Your task to perform on an android device: toggle sleep mode Image 0: 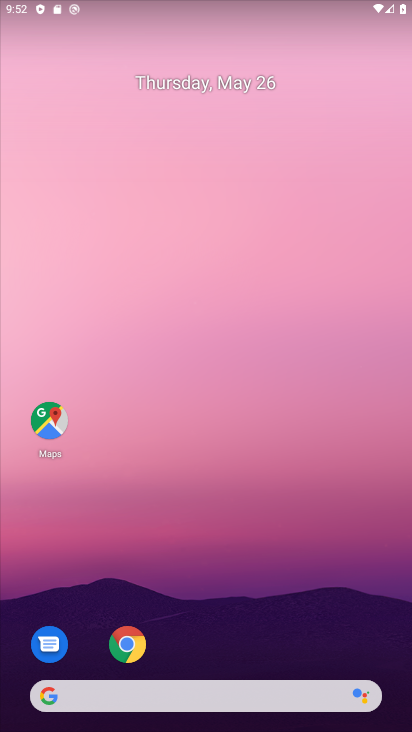
Step 0: drag from (372, 645) to (350, 449)
Your task to perform on an android device: toggle sleep mode Image 1: 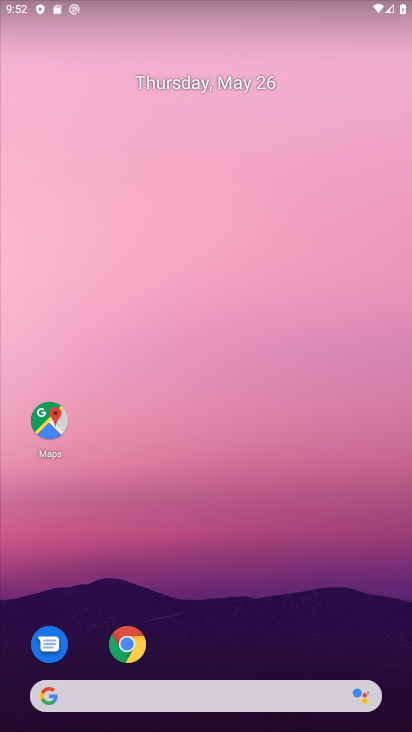
Step 1: drag from (309, 414) to (306, 276)
Your task to perform on an android device: toggle sleep mode Image 2: 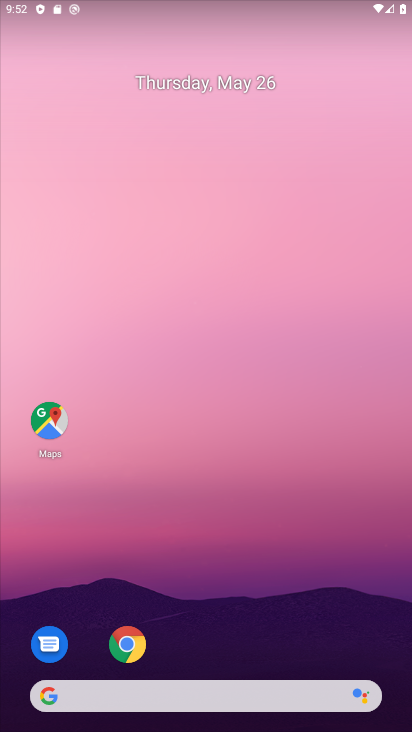
Step 2: drag from (346, 572) to (326, 187)
Your task to perform on an android device: toggle sleep mode Image 3: 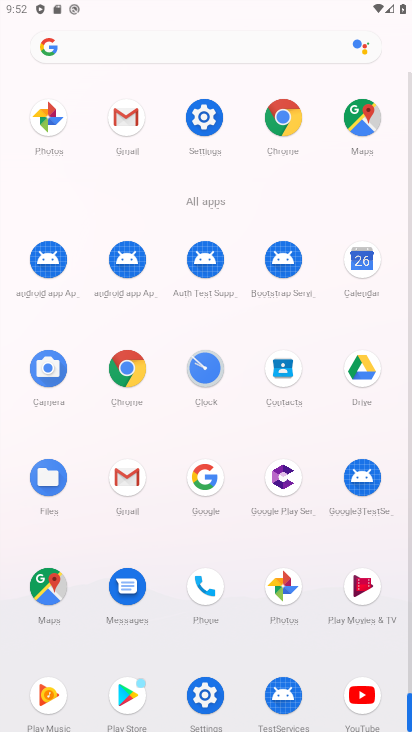
Step 3: click (190, 124)
Your task to perform on an android device: toggle sleep mode Image 4: 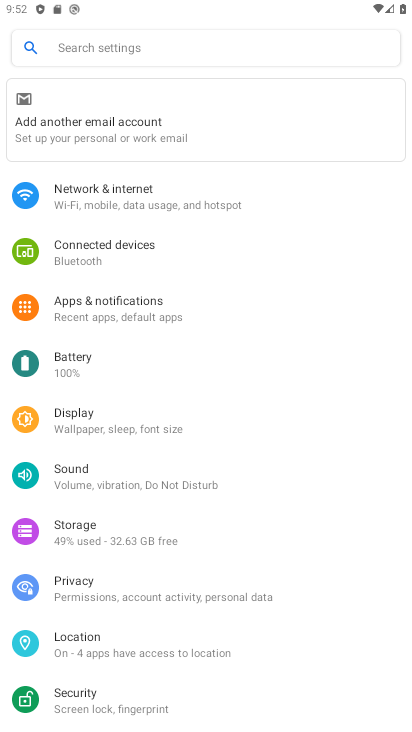
Step 4: click (124, 428)
Your task to perform on an android device: toggle sleep mode Image 5: 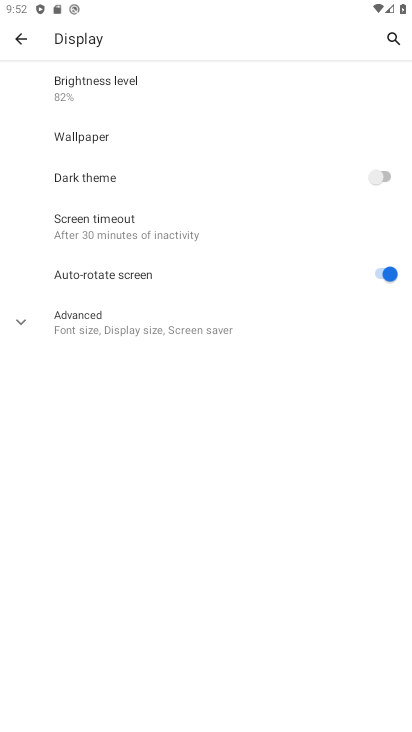
Step 5: task complete